Your task to perform on an android device: change timer sound Image 0: 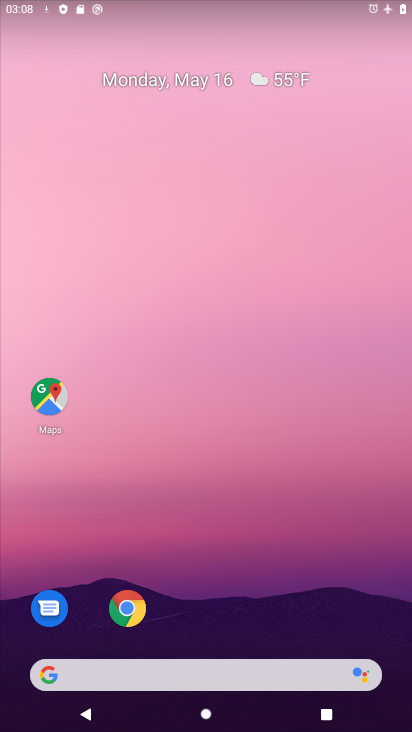
Step 0: click (179, 225)
Your task to perform on an android device: change timer sound Image 1: 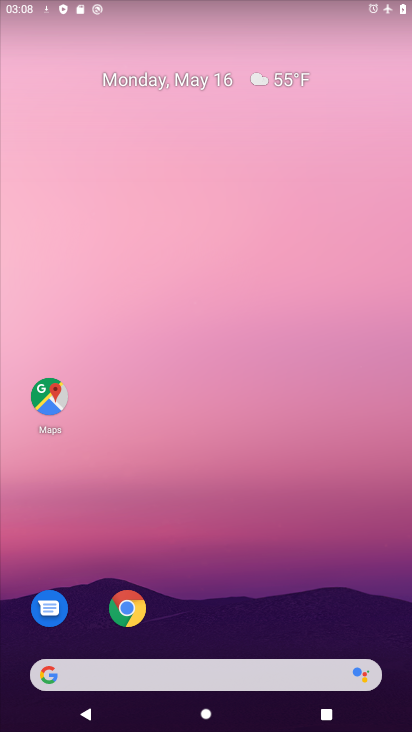
Step 1: click (200, 190)
Your task to perform on an android device: change timer sound Image 2: 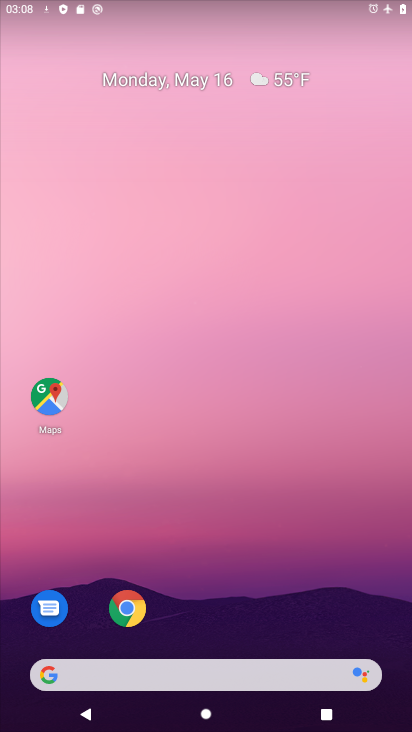
Step 2: drag from (223, 627) to (211, 95)
Your task to perform on an android device: change timer sound Image 3: 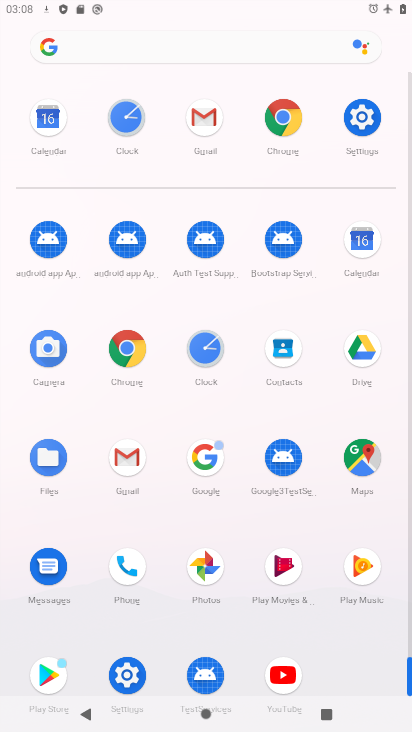
Step 3: click (183, 350)
Your task to perform on an android device: change timer sound Image 4: 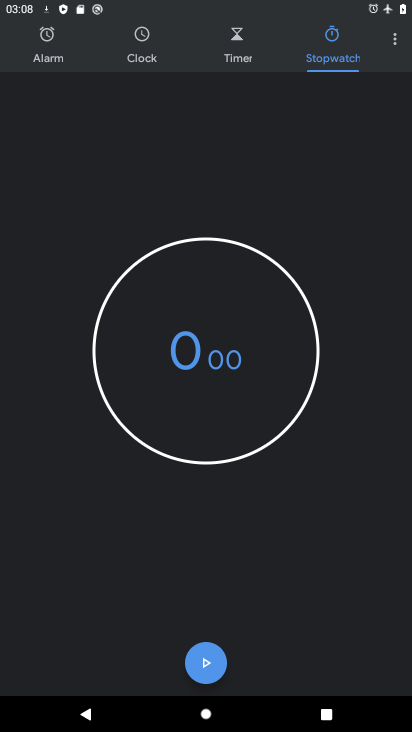
Step 4: click (390, 41)
Your task to perform on an android device: change timer sound Image 5: 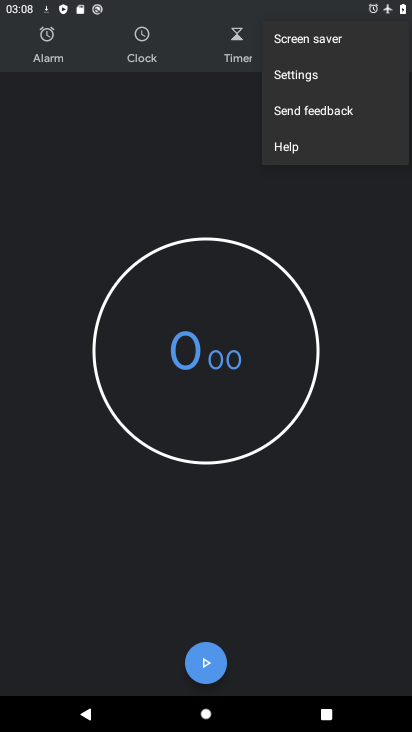
Step 5: click (292, 74)
Your task to perform on an android device: change timer sound Image 6: 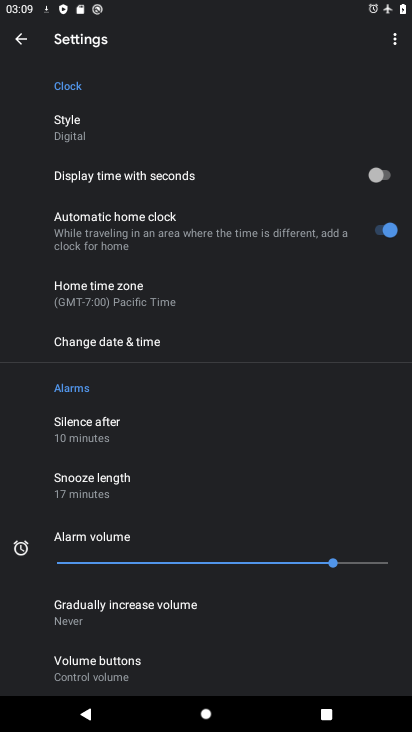
Step 6: drag from (168, 663) to (168, 338)
Your task to perform on an android device: change timer sound Image 7: 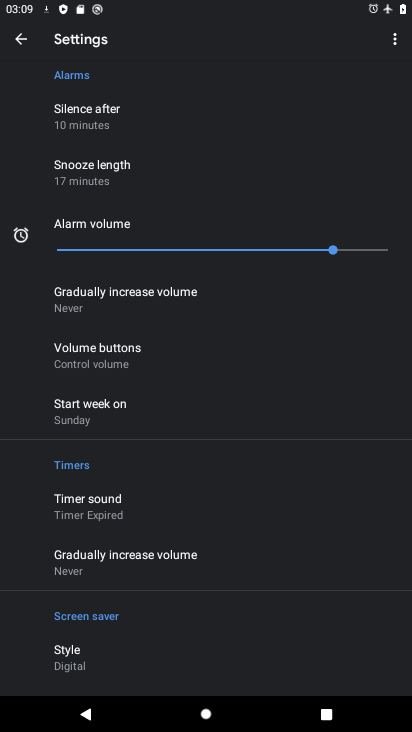
Step 7: click (118, 497)
Your task to perform on an android device: change timer sound Image 8: 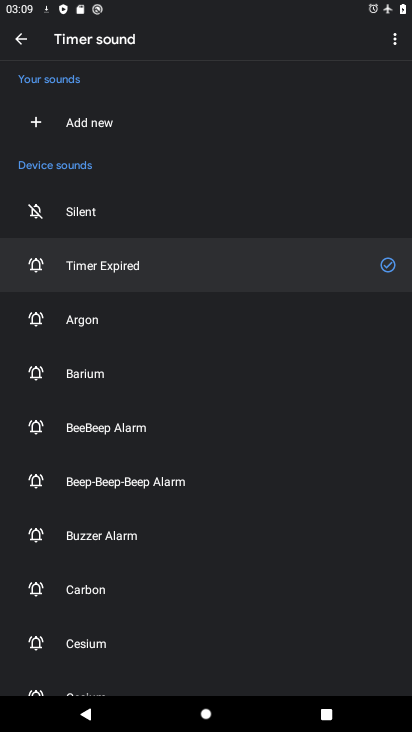
Step 8: click (116, 389)
Your task to perform on an android device: change timer sound Image 9: 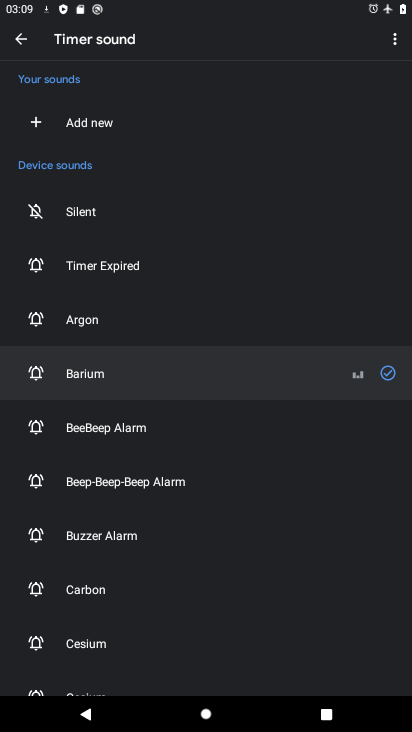
Step 9: task complete